Your task to perform on an android device: turn off wifi Image 0: 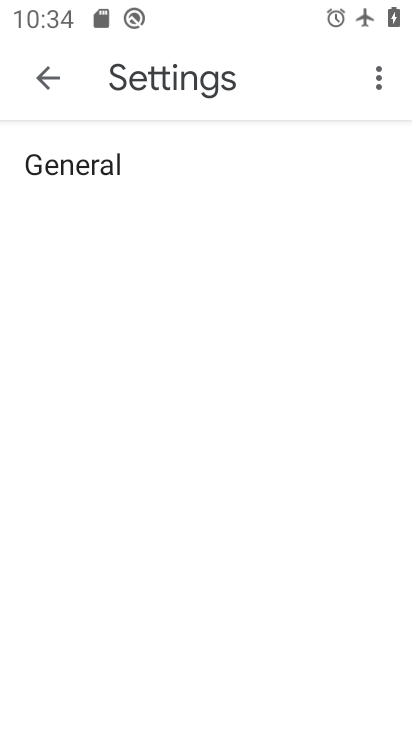
Step 0: press home button
Your task to perform on an android device: turn off wifi Image 1: 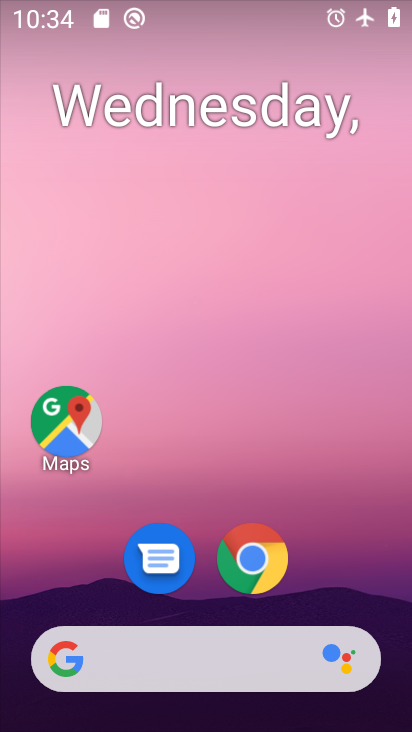
Step 1: drag from (370, 604) to (373, 60)
Your task to perform on an android device: turn off wifi Image 2: 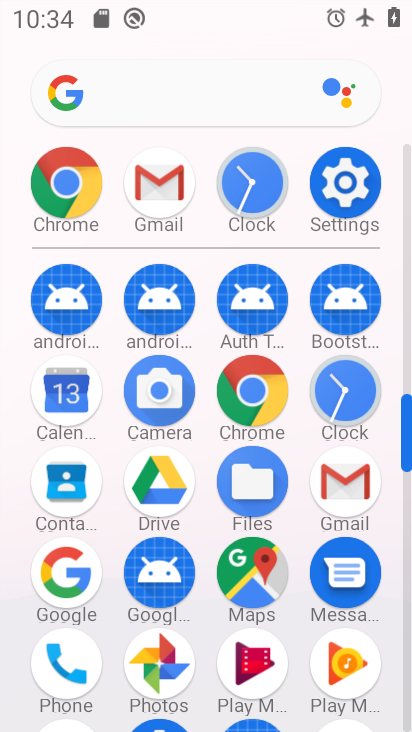
Step 2: click (356, 191)
Your task to perform on an android device: turn off wifi Image 3: 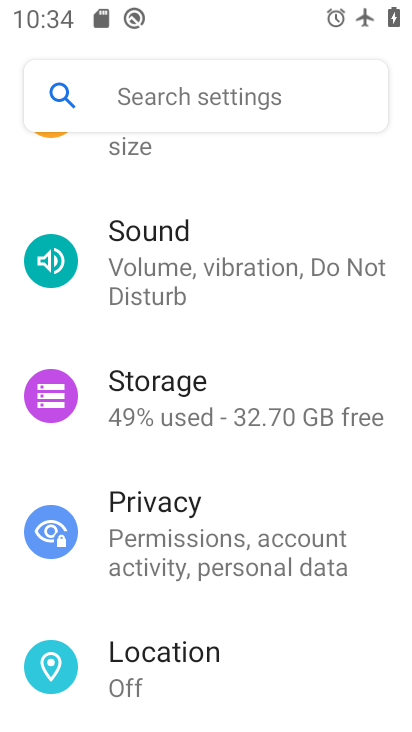
Step 3: drag from (356, 191) to (359, 319)
Your task to perform on an android device: turn off wifi Image 4: 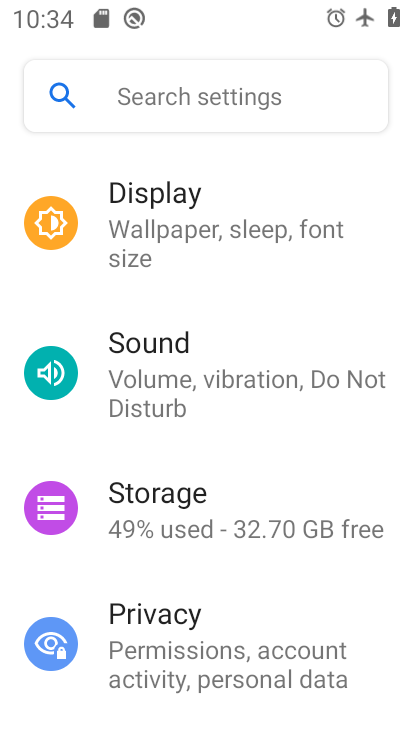
Step 4: drag from (370, 200) to (363, 403)
Your task to perform on an android device: turn off wifi Image 5: 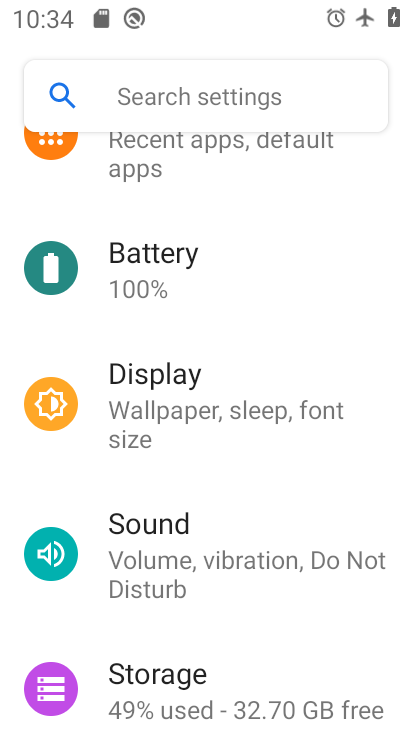
Step 5: drag from (340, 250) to (331, 427)
Your task to perform on an android device: turn off wifi Image 6: 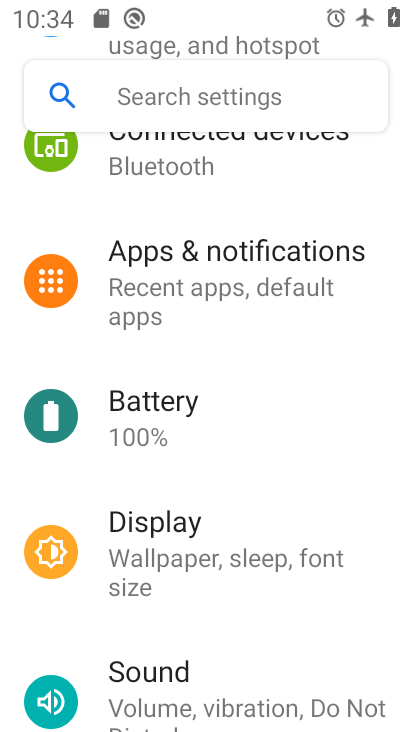
Step 6: drag from (355, 194) to (369, 420)
Your task to perform on an android device: turn off wifi Image 7: 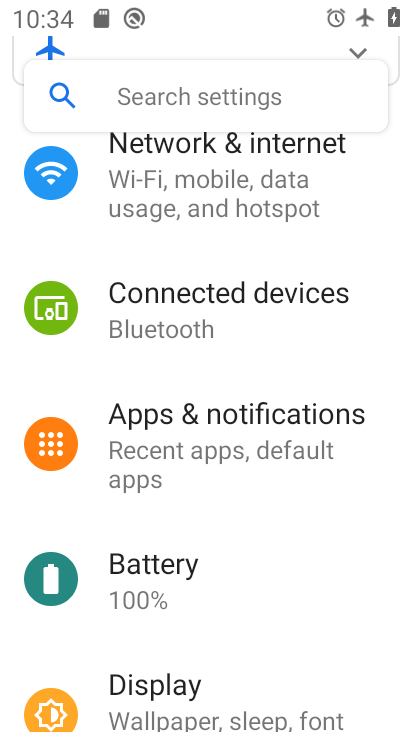
Step 7: drag from (372, 219) to (376, 413)
Your task to perform on an android device: turn off wifi Image 8: 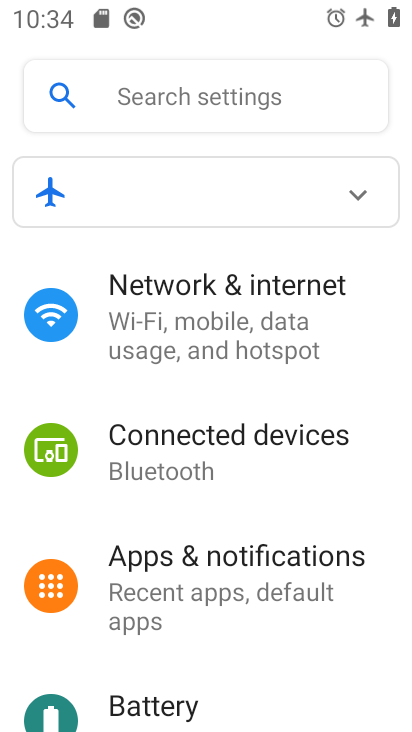
Step 8: click (211, 337)
Your task to perform on an android device: turn off wifi Image 9: 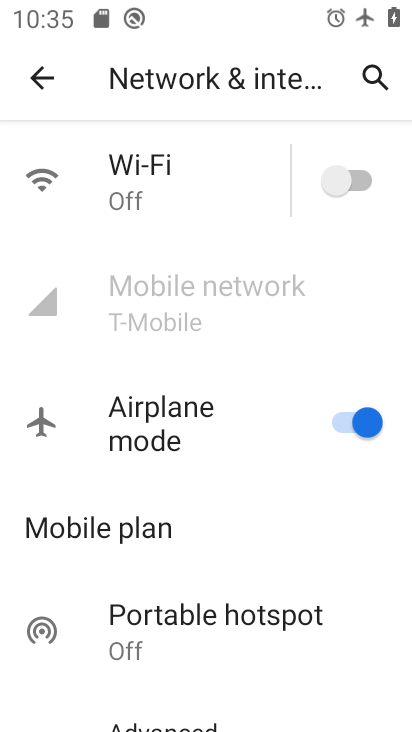
Step 9: task complete